Your task to perform on an android device: Go to Wikipedia Image 0: 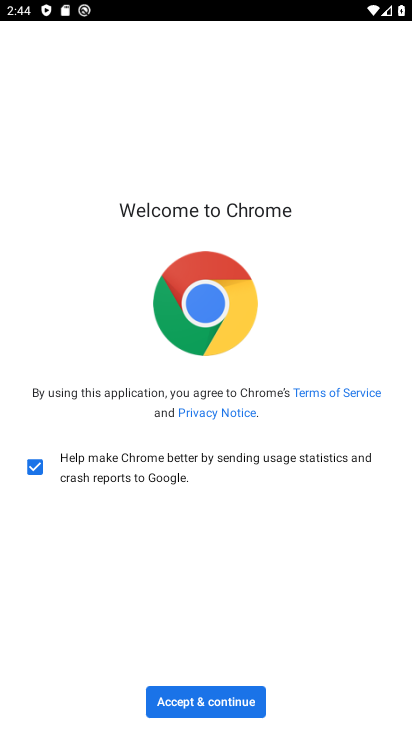
Step 0: click (202, 703)
Your task to perform on an android device: Go to Wikipedia Image 1: 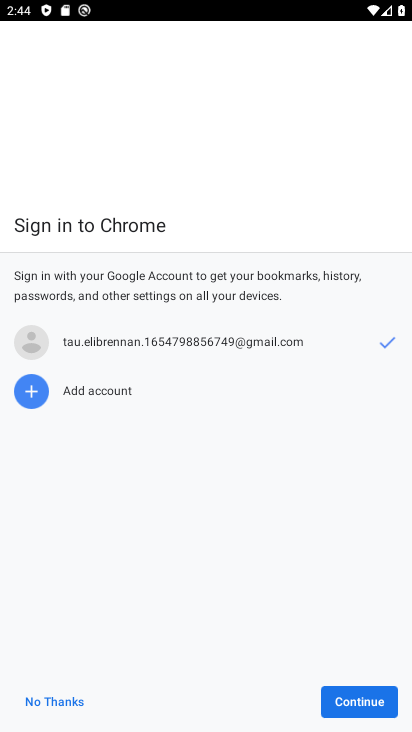
Step 1: click (390, 698)
Your task to perform on an android device: Go to Wikipedia Image 2: 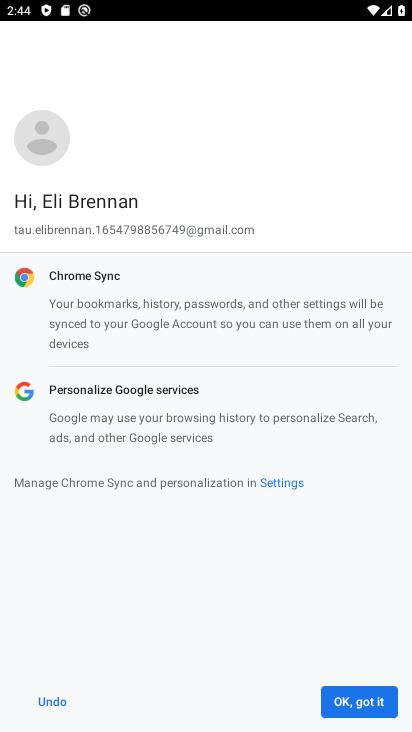
Step 2: click (369, 704)
Your task to perform on an android device: Go to Wikipedia Image 3: 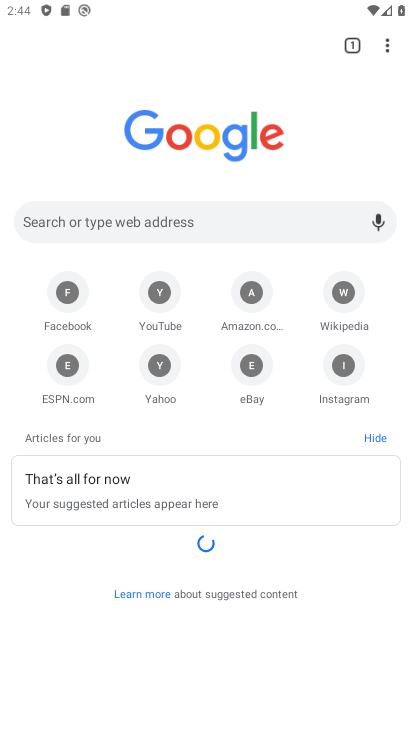
Step 3: click (340, 290)
Your task to perform on an android device: Go to Wikipedia Image 4: 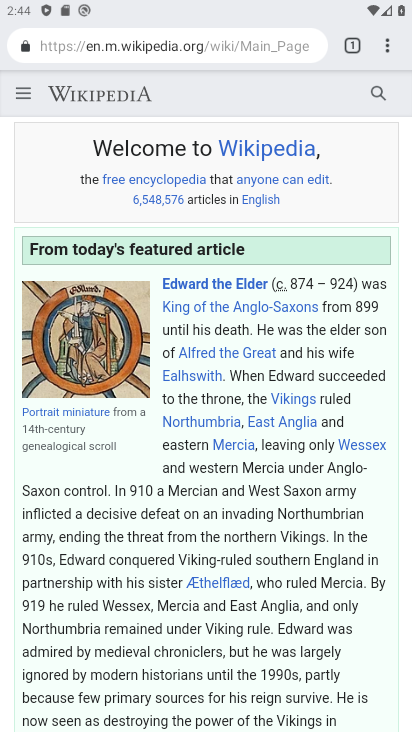
Step 4: task complete